Your task to perform on an android device: change the clock display to analog Image 0: 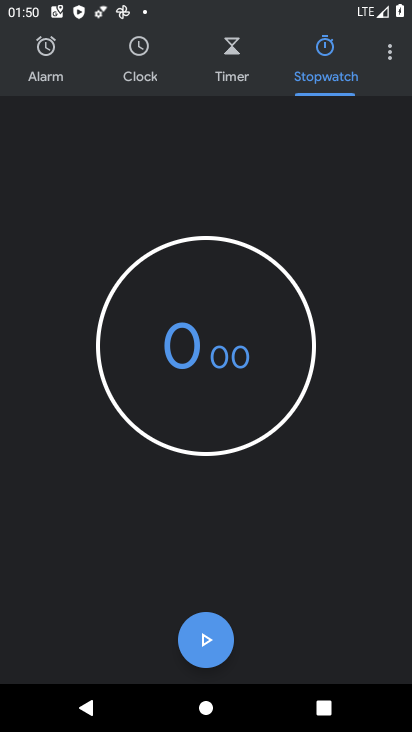
Step 0: click (386, 55)
Your task to perform on an android device: change the clock display to analog Image 1: 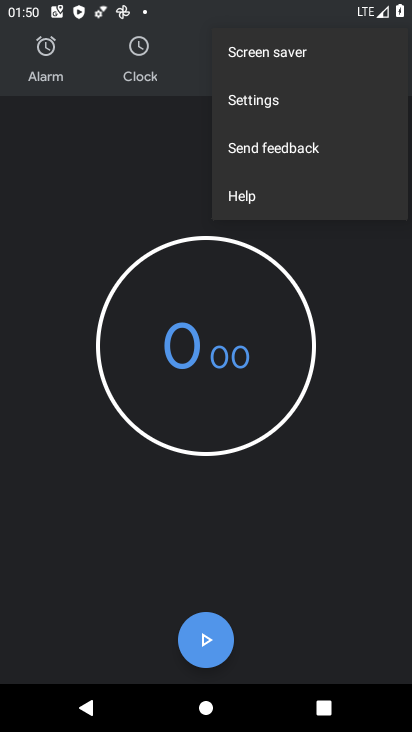
Step 1: click (244, 102)
Your task to perform on an android device: change the clock display to analog Image 2: 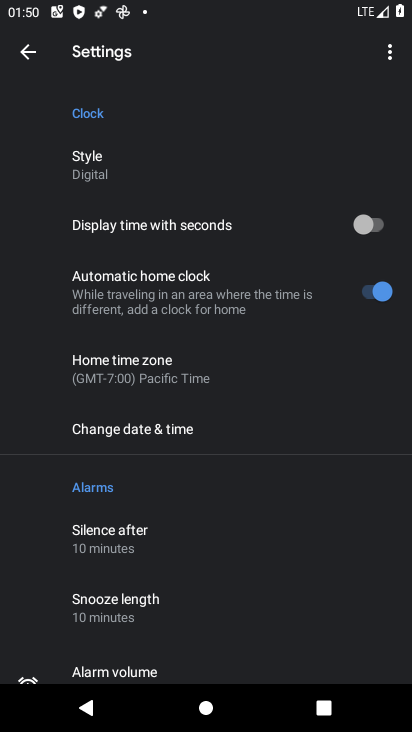
Step 2: click (77, 164)
Your task to perform on an android device: change the clock display to analog Image 3: 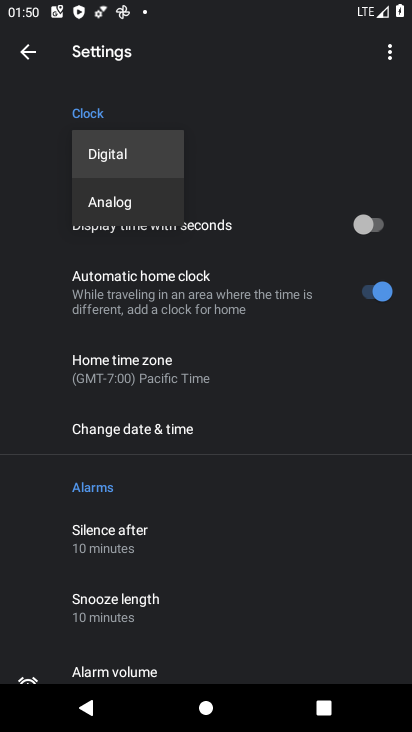
Step 3: click (101, 191)
Your task to perform on an android device: change the clock display to analog Image 4: 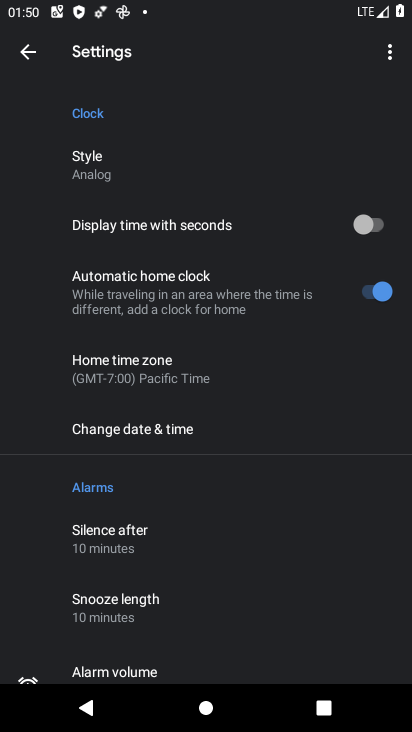
Step 4: task complete